Your task to perform on an android device: Open settings Image 0: 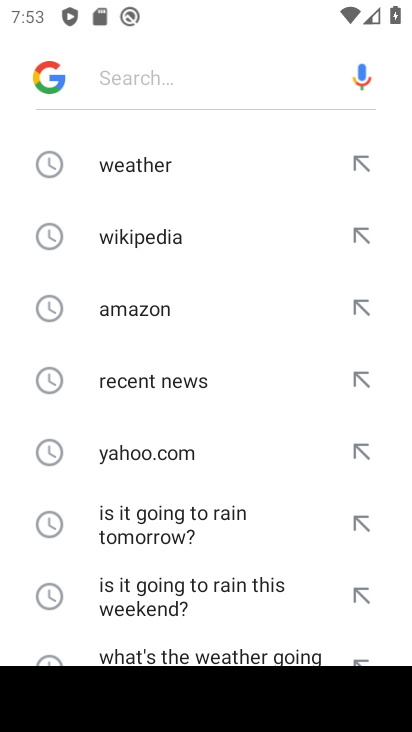
Step 0: press home button
Your task to perform on an android device: Open settings Image 1: 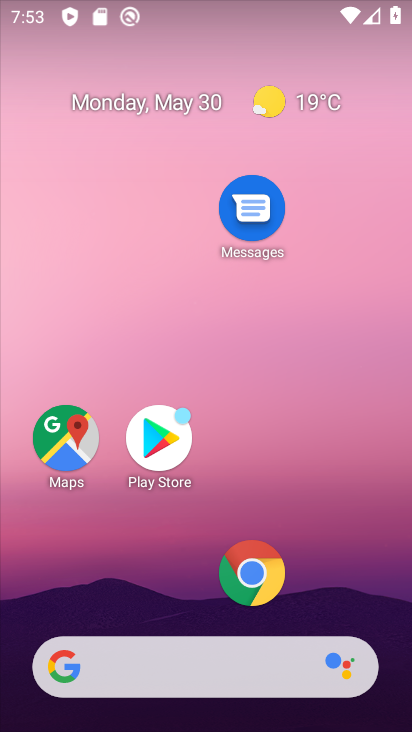
Step 1: drag from (161, 589) to (299, 8)
Your task to perform on an android device: Open settings Image 2: 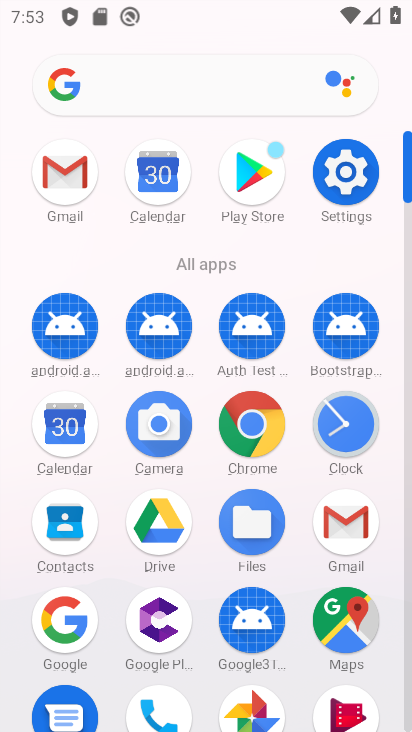
Step 2: click (341, 194)
Your task to perform on an android device: Open settings Image 3: 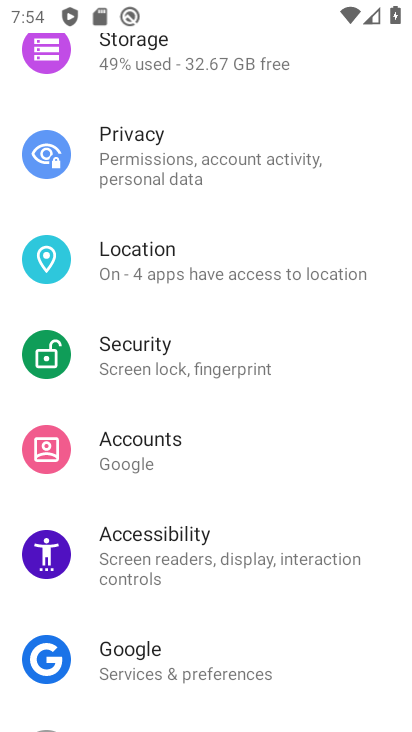
Step 3: task complete